Your task to perform on an android device: turn off notifications settings in the gmail app Image 0: 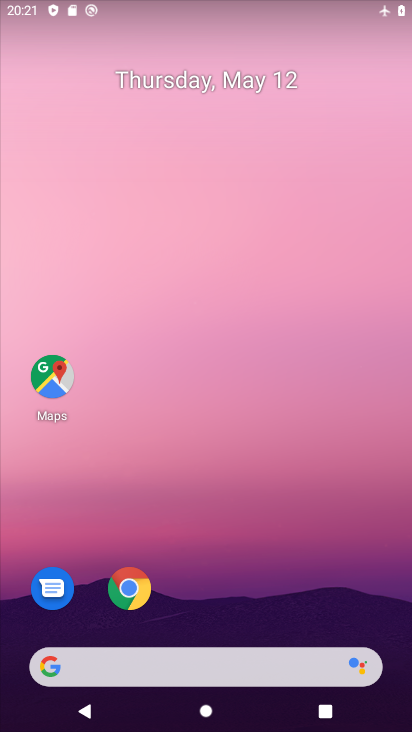
Step 0: drag from (168, 623) to (283, 77)
Your task to perform on an android device: turn off notifications settings in the gmail app Image 1: 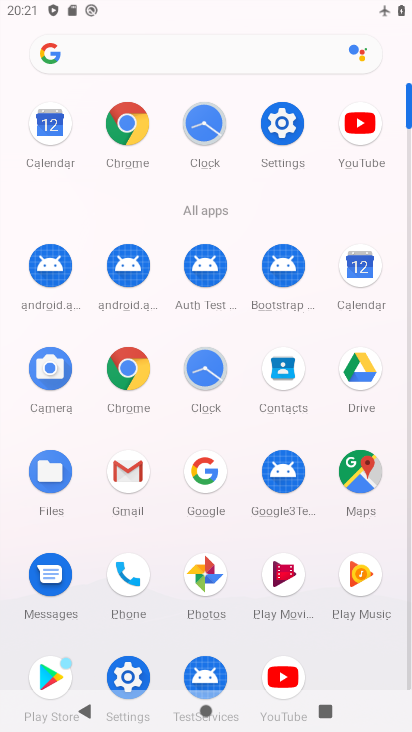
Step 1: click (126, 474)
Your task to perform on an android device: turn off notifications settings in the gmail app Image 2: 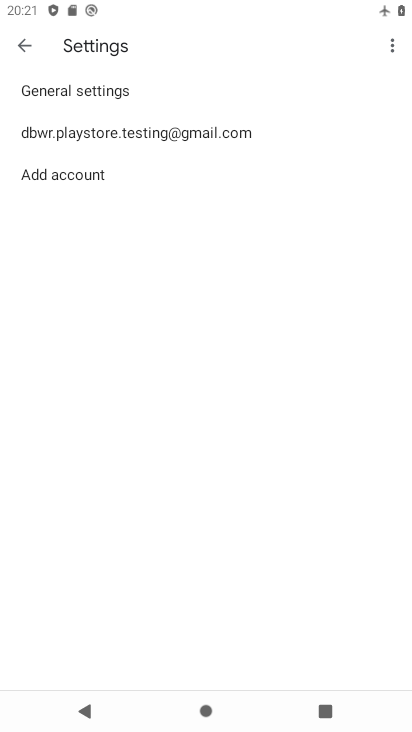
Step 2: click (168, 126)
Your task to perform on an android device: turn off notifications settings in the gmail app Image 3: 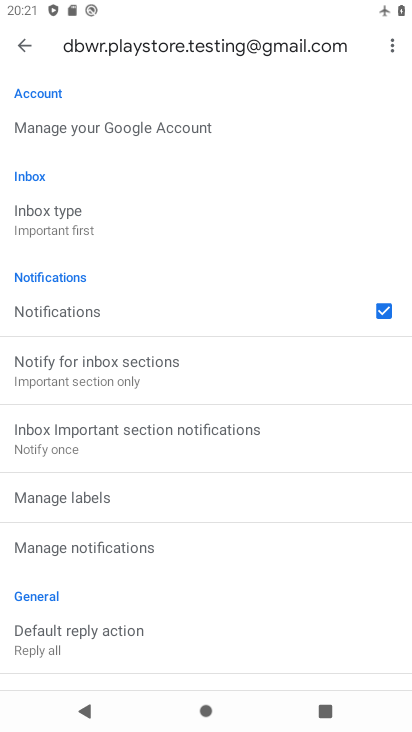
Step 3: click (170, 548)
Your task to perform on an android device: turn off notifications settings in the gmail app Image 4: 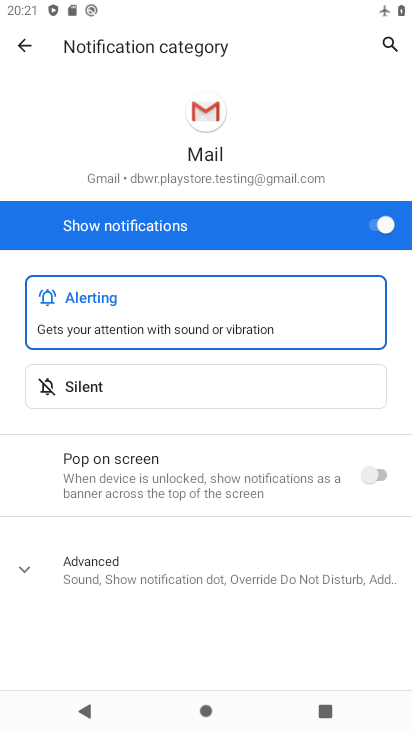
Step 4: click (374, 220)
Your task to perform on an android device: turn off notifications settings in the gmail app Image 5: 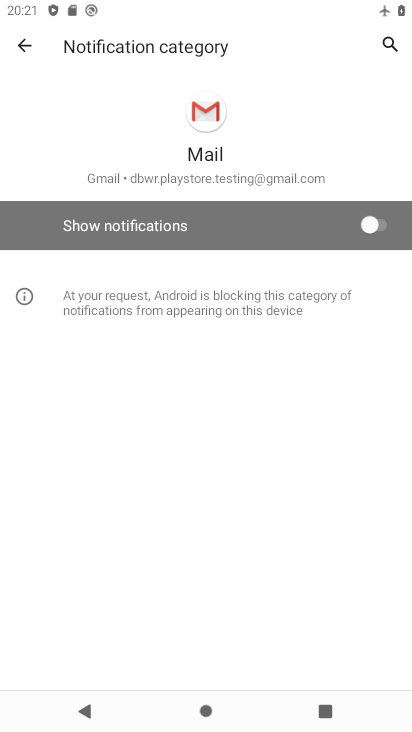
Step 5: task complete